Your task to perform on an android device: toggle sleep mode Image 0: 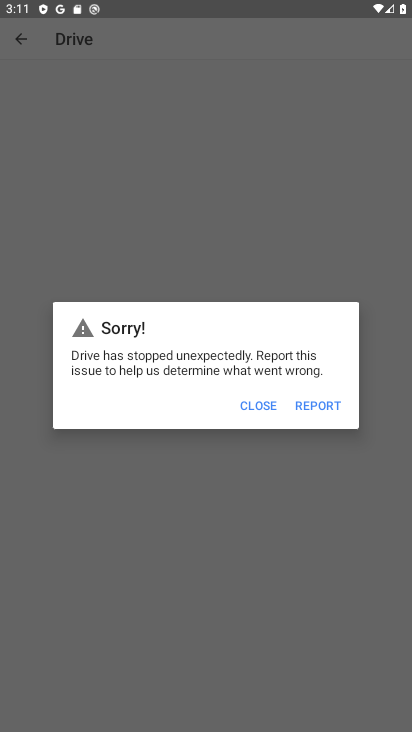
Step 0: press home button
Your task to perform on an android device: toggle sleep mode Image 1: 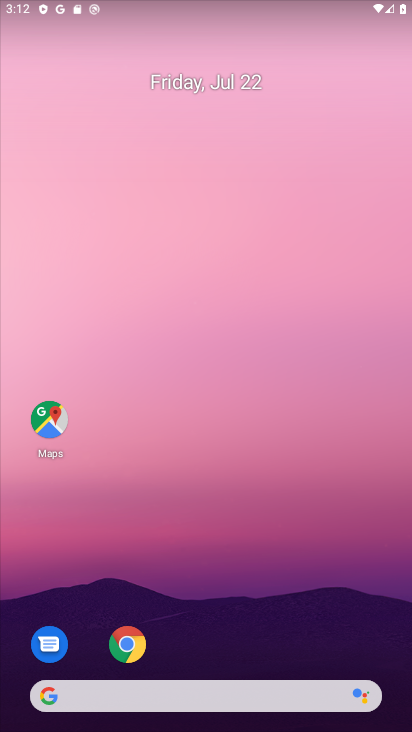
Step 1: drag from (206, 731) to (211, 185)
Your task to perform on an android device: toggle sleep mode Image 2: 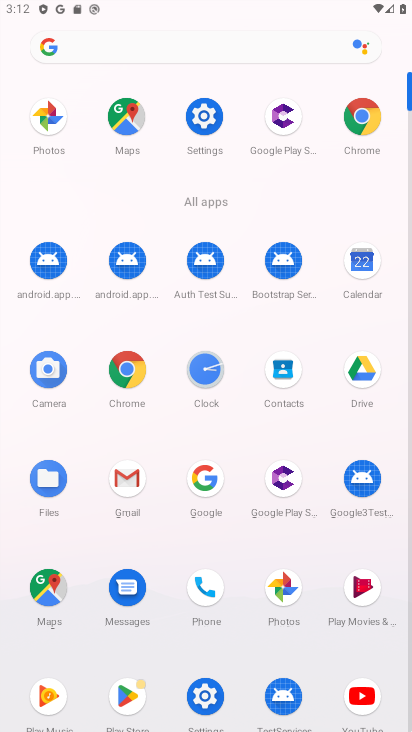
Step 2: click (207, 123)
Your task to perform on an android device: toggle sleep mode Image 3: 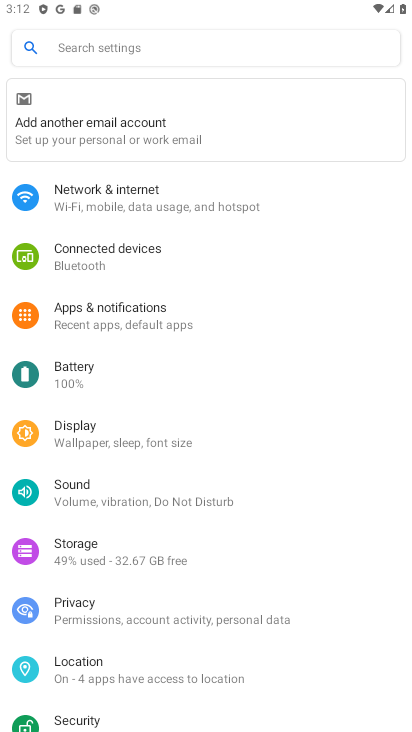
Step 3: click (127, 437)
Your task to perform on an android device: toggle sleep mode Image 4: 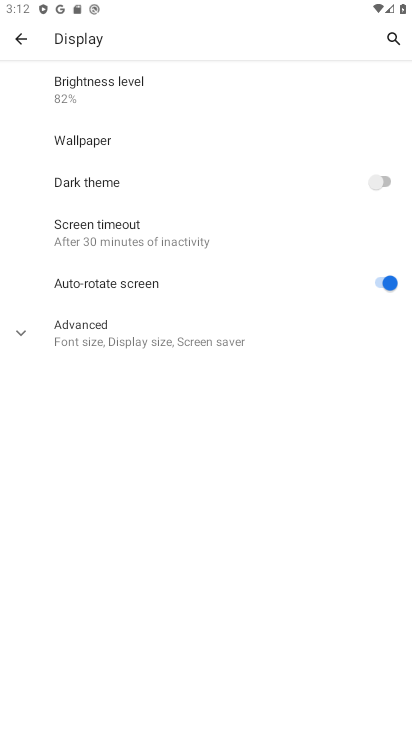
Step 4: click (105, 329)
Your task to perform on an android device: toggle sleep mode Image 5: 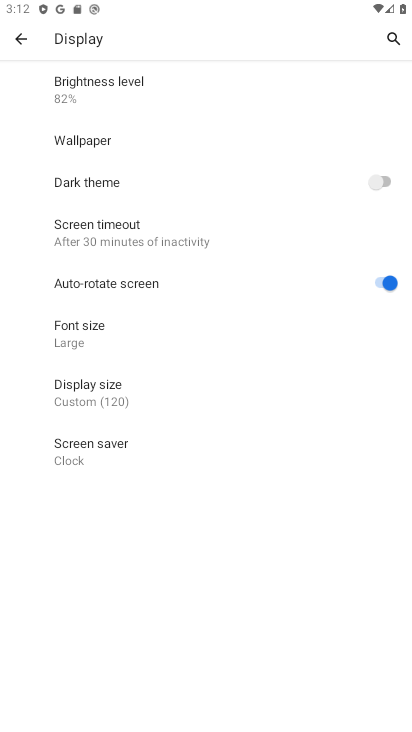
Step 5: task complete